Your task to perform on an android device: turn on bluetooth scan Image 0: 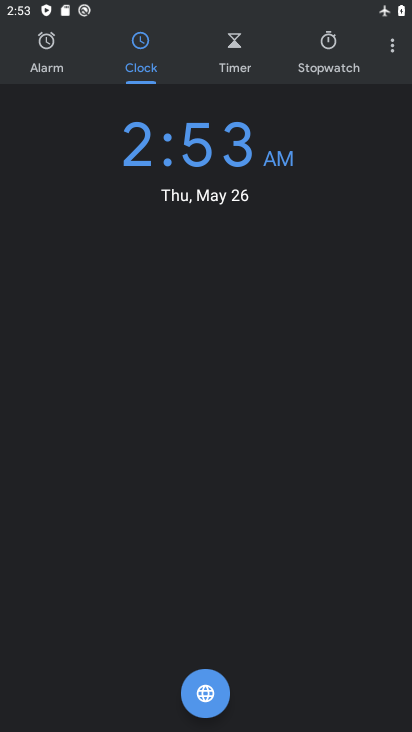
Step 0: press back button
Your task to perform on an android device: turn on bluetooth scan Image 1: 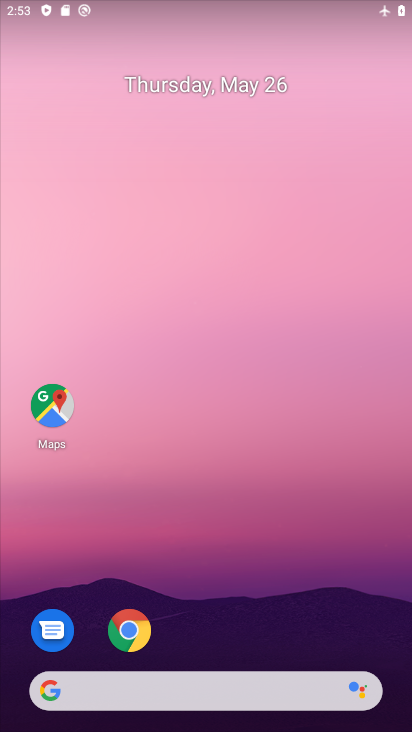
Step 1: drag from (238, 590) to (230, 229)
Your task to perform on an android device: turn on bluetooth scan Image 2: 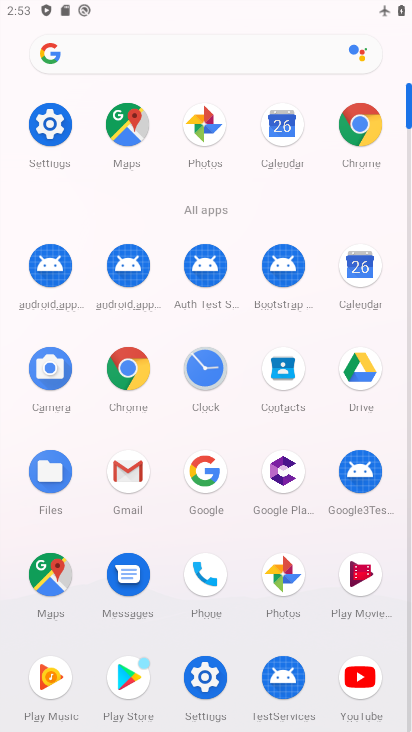
Step 2: click (50, 121)
Your task to perform on an android device: turn on bluetooth scan Image 3: 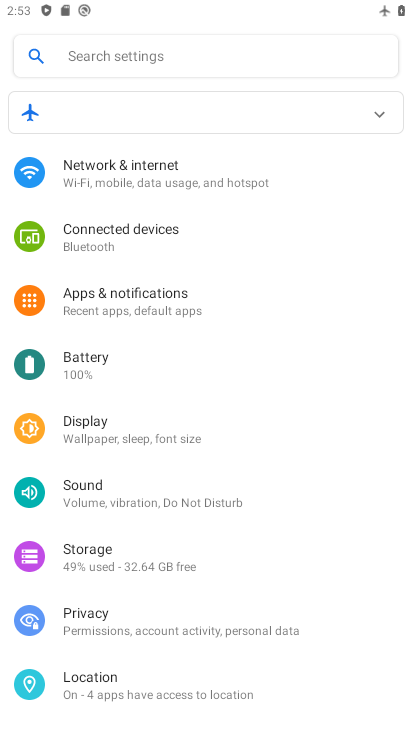
Step 3: click (109, 687)
Your task to perform on an android device: turn on bluetooth scan Image 4: 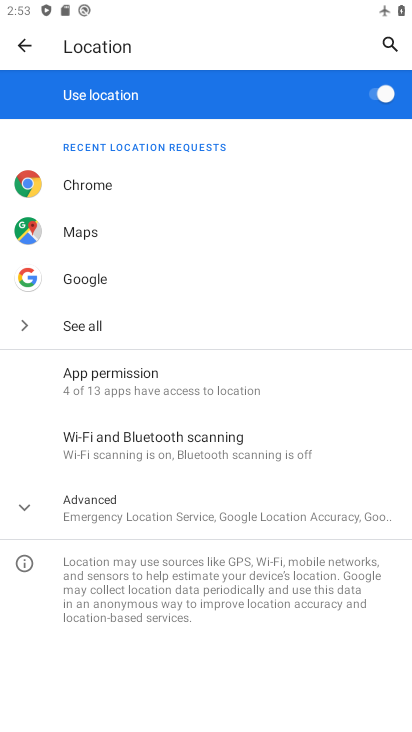
Step 4: click (157, 445)
Your task to perform on an android device: turn on bluetooth scan Image 5: 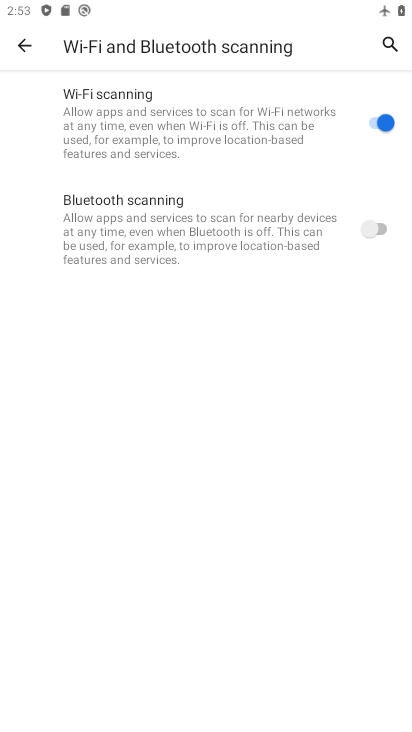
Step 5: click (373, 232)
Your task to perform on an android device: turn on bluetooth scan Image 6: 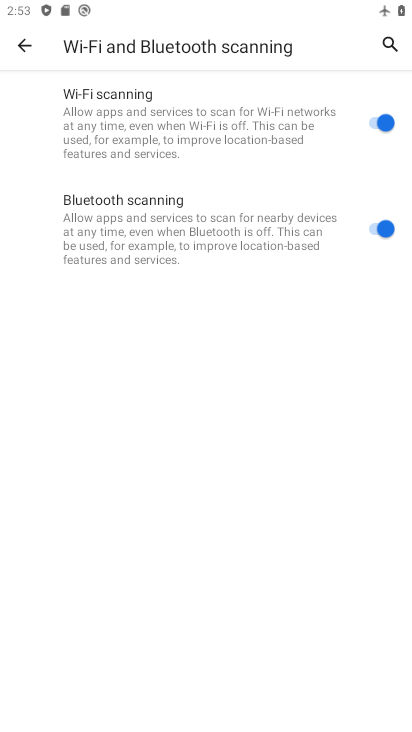
Step 6: task complete